Your task to perform on an android device: change the clock style Image 0: 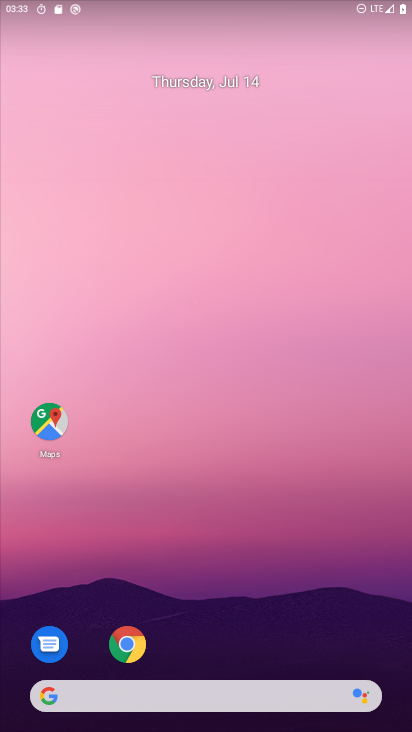
Step 0: drag from (288, 613) to (247, 90)
Your task to perform on an android device: change the clock style Image 1: 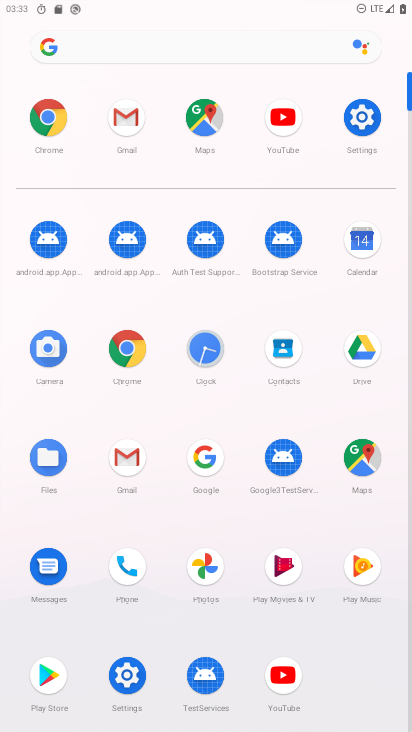
Step 1: click (208, 345)
Your task to perform on an android device: change the clock style Image 2: 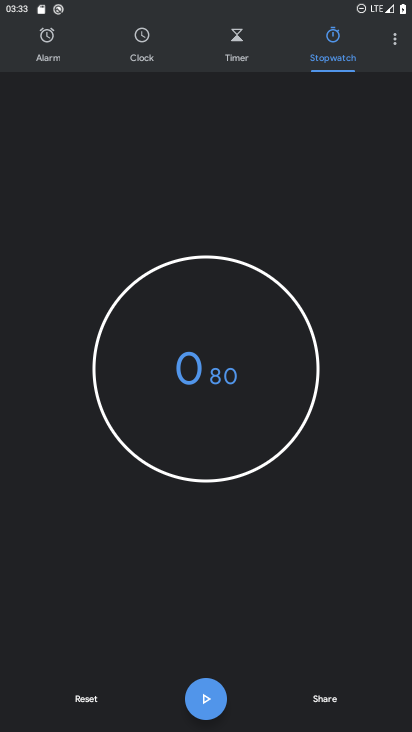
Step 2: click (399, 27)
Your task to perform on an android device: change the clock style Image 3: 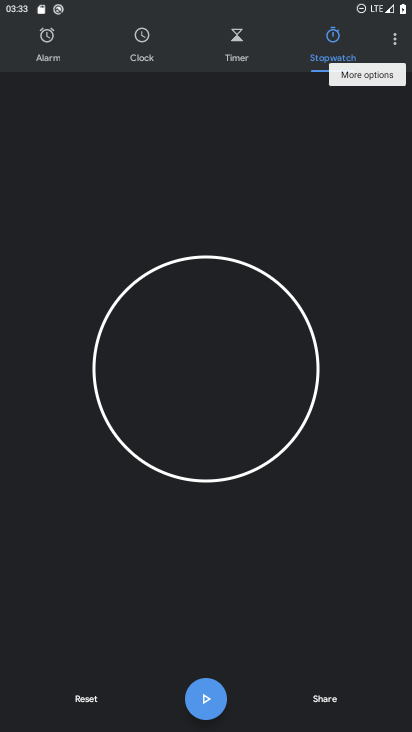
Step 3: click (394, 48)
Your task to perform on an android device: change the clock style Image 4: 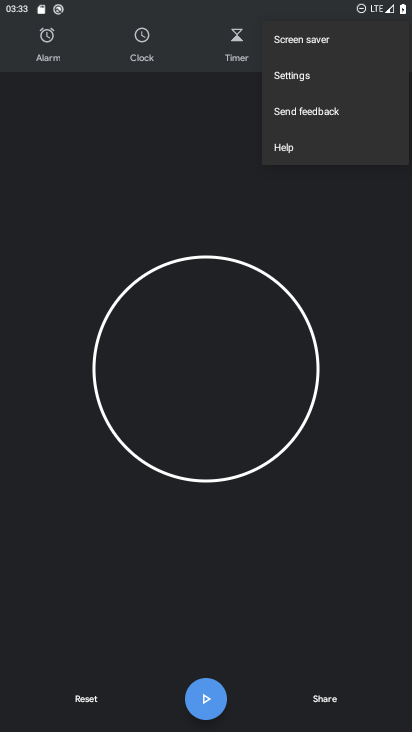
Step 4: click (306, 81)
Your task to perform on an android device: change the clock style Image 5: 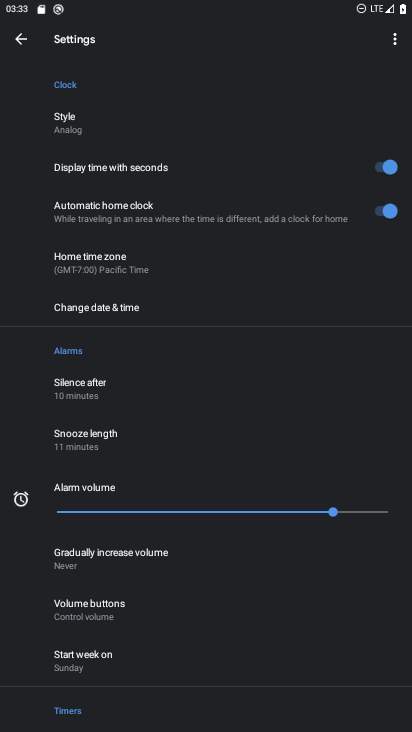
Step 5: click (74, 128)
Your task to perform on an android device: change the clock style Image 6: 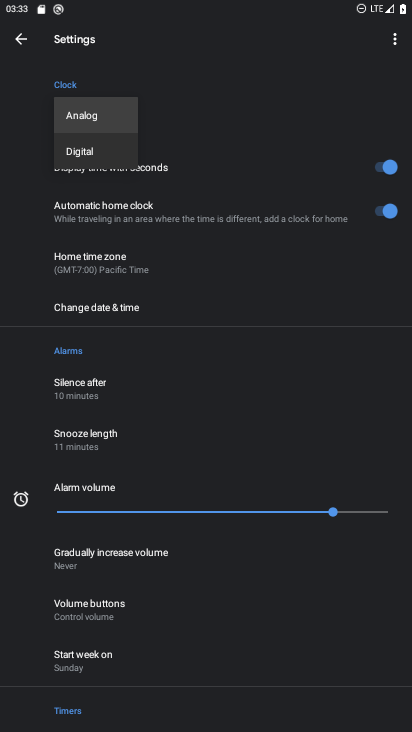
Step 6: click (102, 154)
Your task to perform on an android device: change the clock style Image 7: 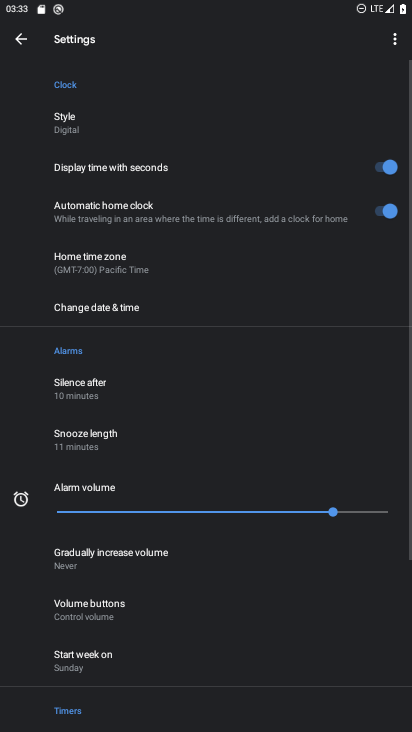
Step 7: task complete